Your task to perform on an android device: open chrome privacy settings Image 0: 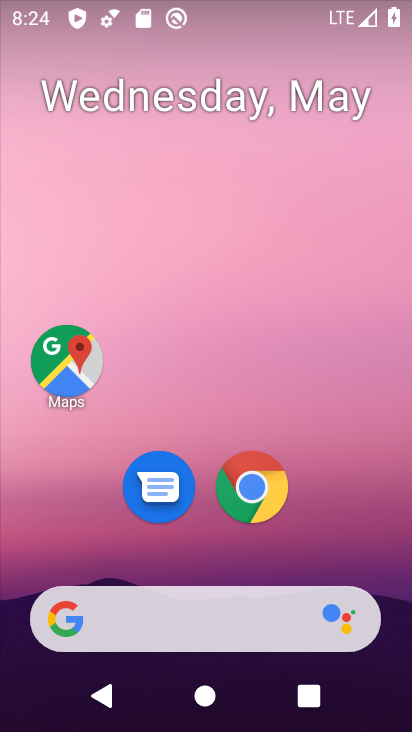
Step 0: click (243, 486)
Your task to perform on an android device: open chrome privacy settings Image 1: 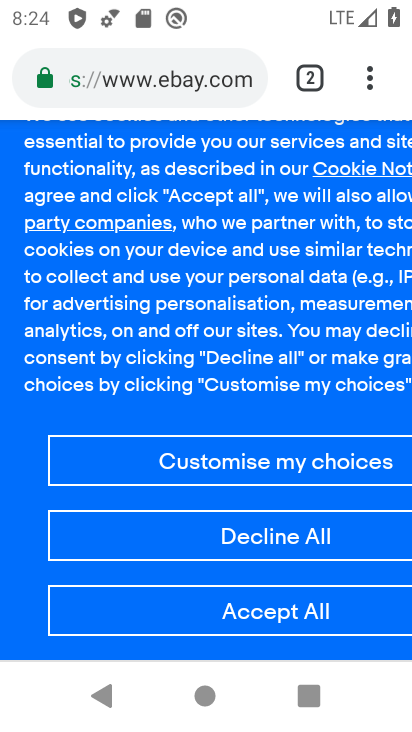
Step 1: drag from (362, 82) to (107, 541)
Your task to perform on an android device: open chrome privacy settings Image 2: 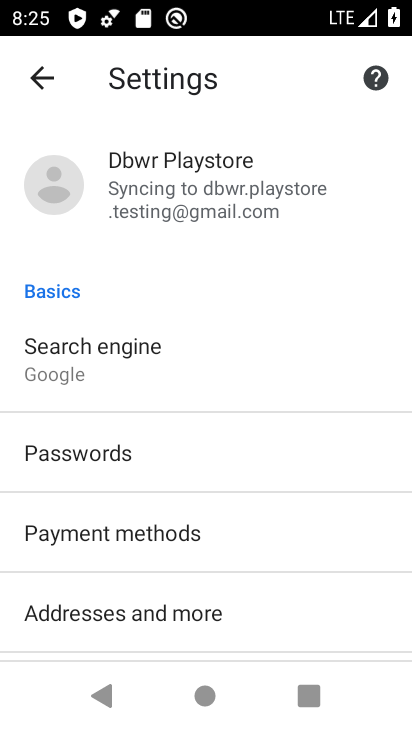
Step 2: drag from (206, 582) to (279, 347)
Your task to perform on an android device: open chrome privacy settings Image 3: 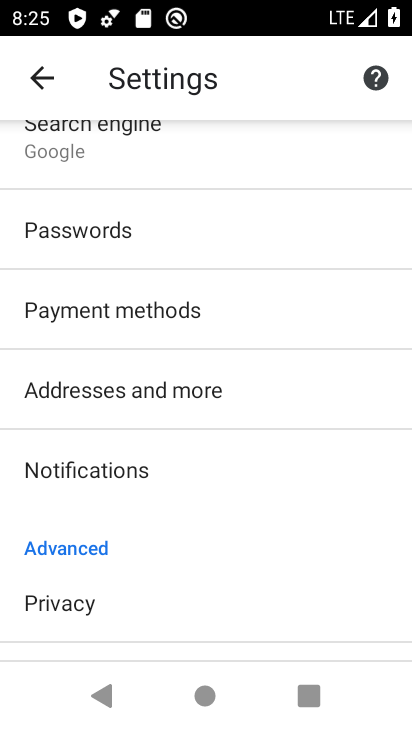
Step 3: click (105, 586)
Your task to perform on an android device: open chrome privacy settings Image 4: 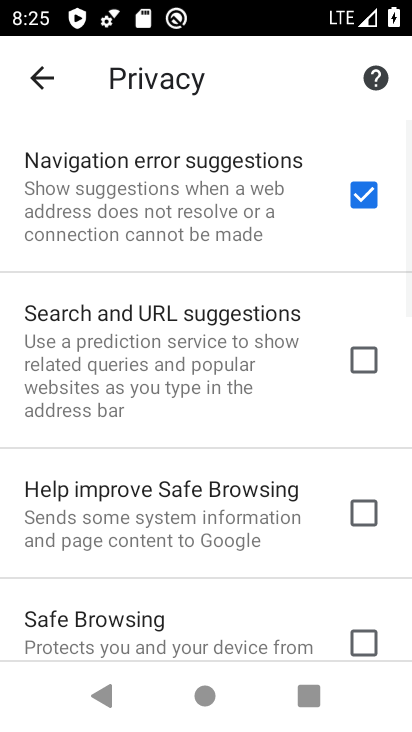
Step 4: task complete